Your task to perform on an android device: turn smart compose on in the gmail app Image 0: 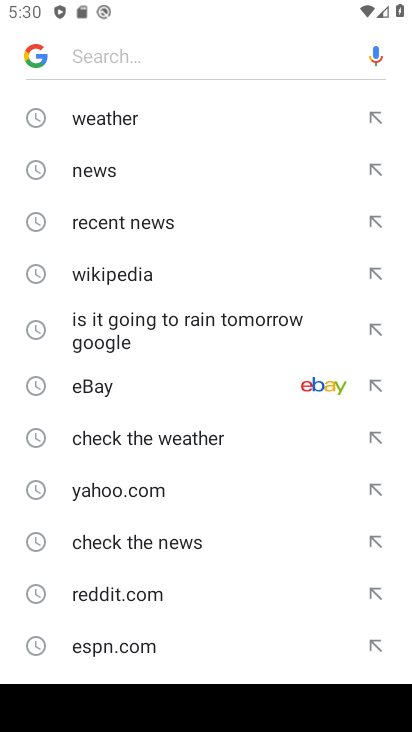
Step 0: press home button
Your task to perform on an android device: turn smart compose on in the gmail app Image 1: 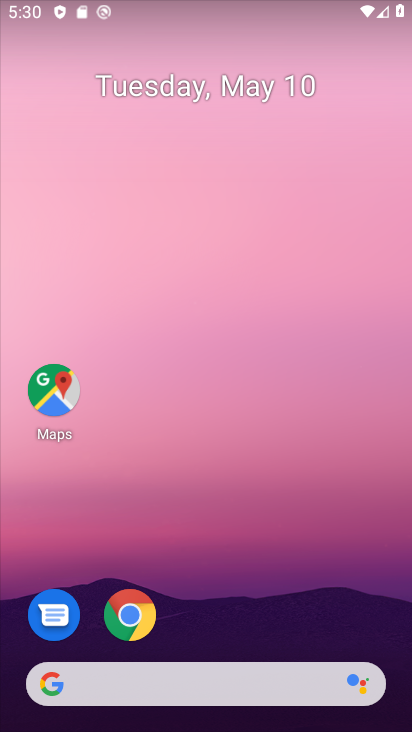
Step 1: drag from (192, 636) to (259, 108)
Your task to perform on an android device: turn smart compose on in the gmail app Image 2: 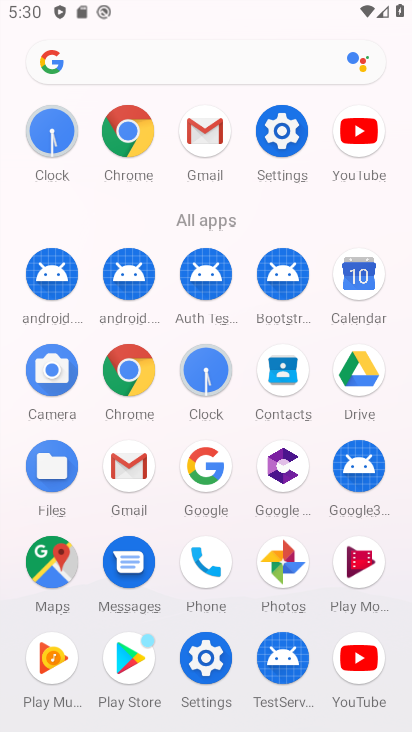
Step 2: click (132, 489)
Your task to perform on an android device: turn smart compose on in the gmail app Image 3: 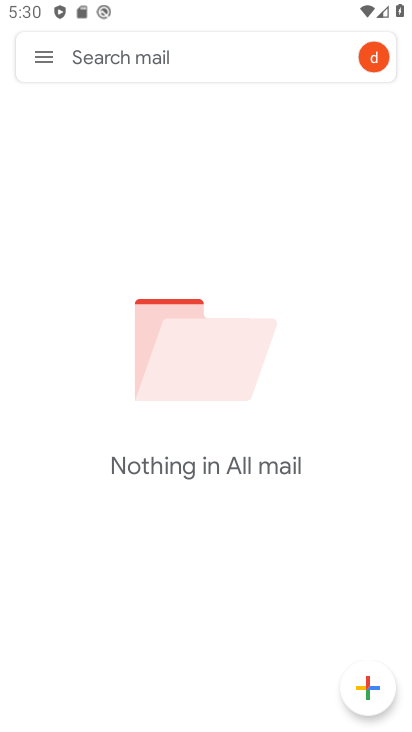
Step 3: click (54, 62)
Your task to perform on an android device: turn smart compose on in the gmail app Image 4: 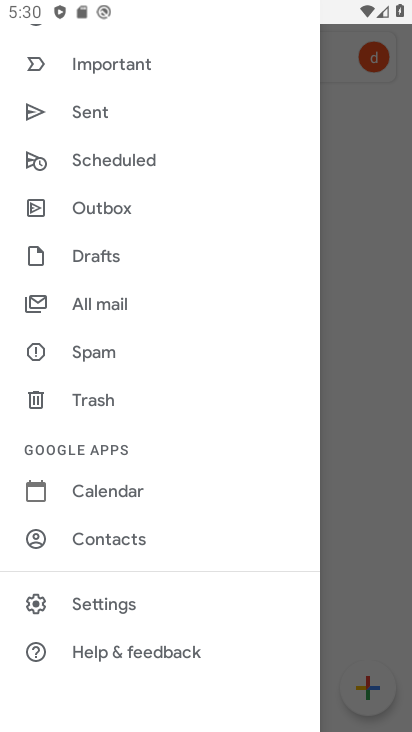
Step 4: click (123, 600)
Your task to perform on an android device: turn smart compose on in the gmail app Image 5: 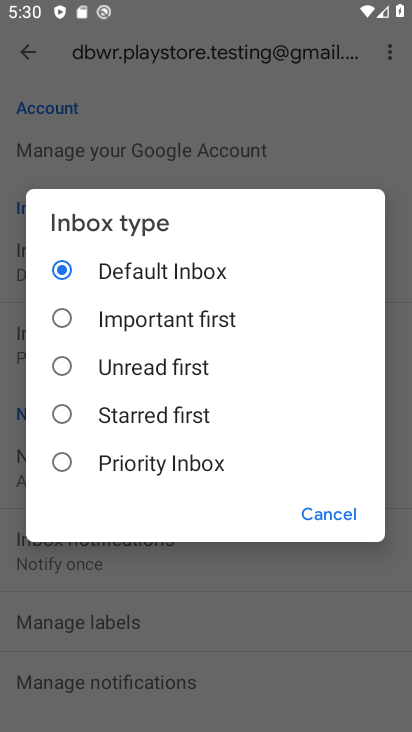
Step 5: click (361, 511)
Your task to perform on an android device: turn smart compose on in the gmail app Image 6: 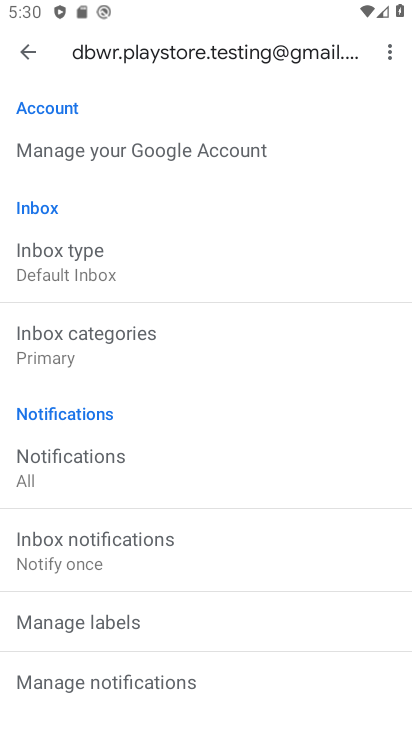
Step 6: task complete